Your task to perform on an android device: turn on wifi Image 0: 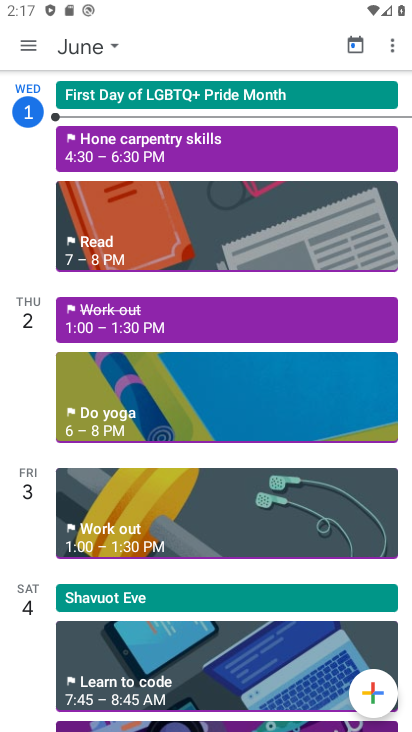
Step 0: press home button
Your task to perform on an android device: turn on wifi Image 1: 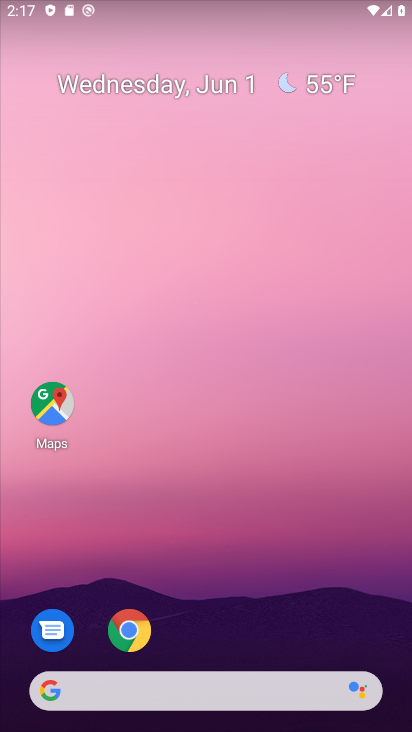
Step 1: drag from (205, 582) to (305, 189)
Your task to perform on an android device: turn on wifi Image 2: 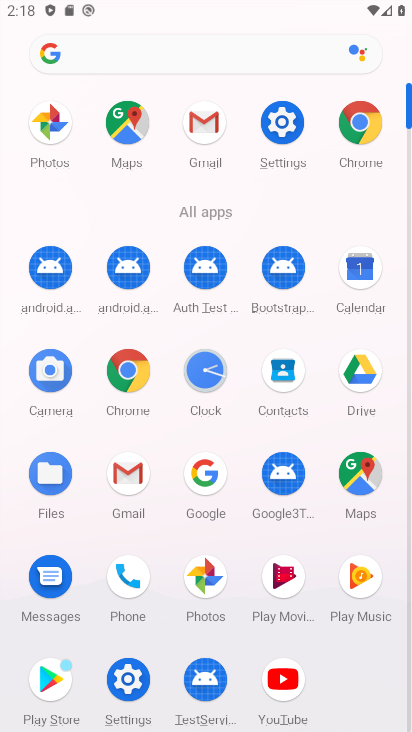
Step 2: click (127, 692)
Your task to perform on an android device: turn on wifi Image 3: 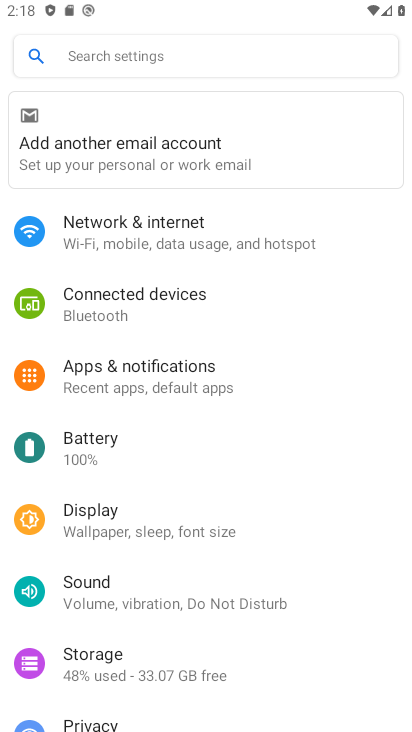
Step 3: click (230, 229)
Your task to perform on an android device: turn on wifi Image 4: 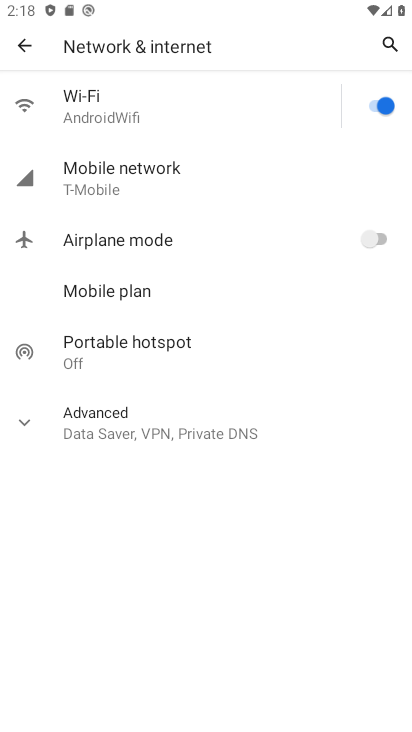
Step 4: click (207, 120)
Your task to perform on an android device: turn on wifi Image 5: 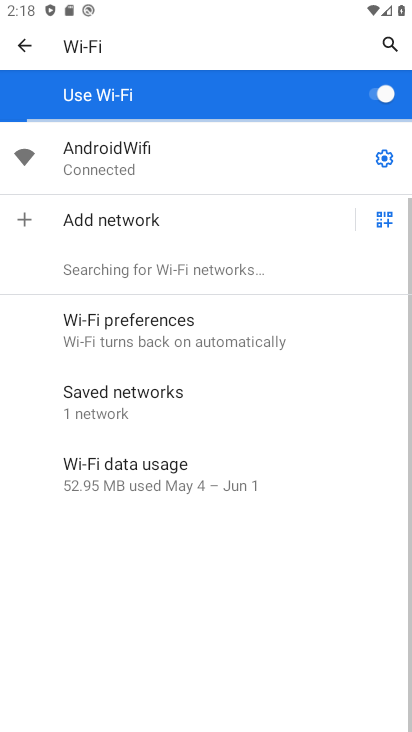
Step 5: task complete